Your task to perform on an android device: turn notification dots off Image 0: 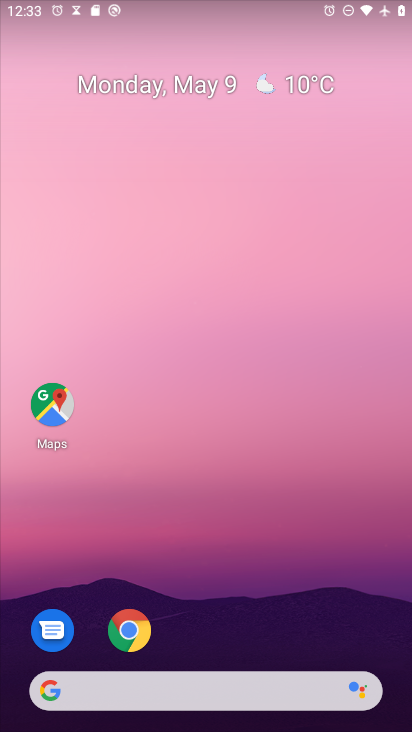
Step 0: drag from (207, 698) to (346, 194)
Your task to perform on an android device: turn notification dots off Image 1: 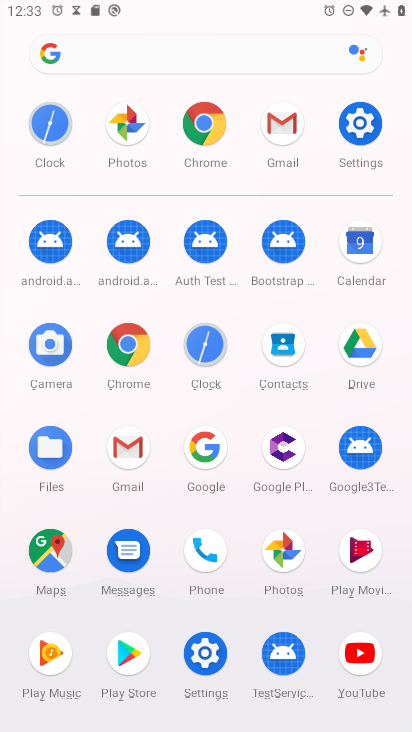
Step 1: click (347, 133)
Your task to perform on an android device: turn notification dots off Image 2: 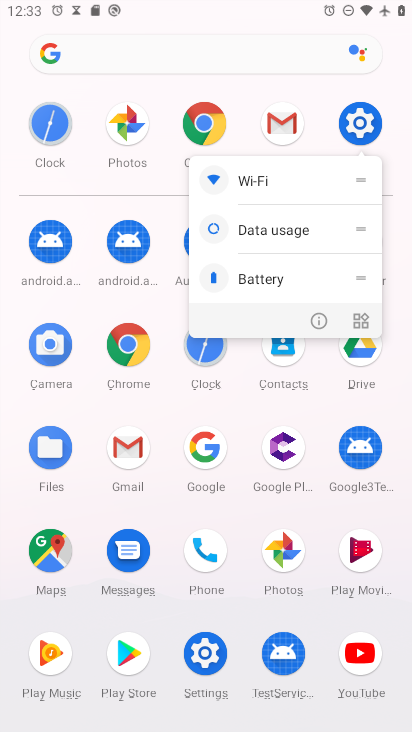
Step 2: click (365, 118)
Your task to perform on an android device: turn notification dots off Image 3: 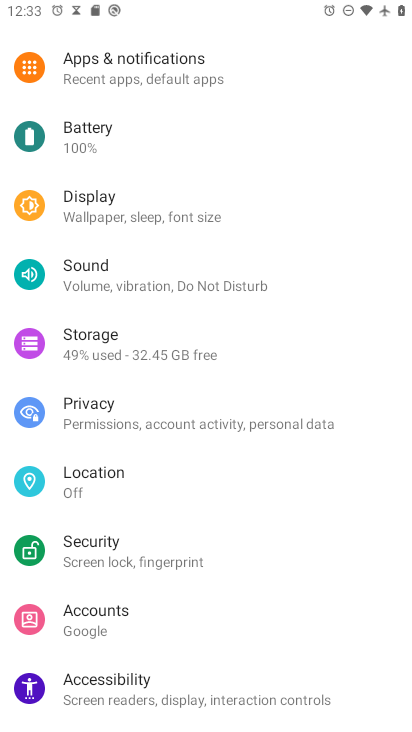
Step 3: click (176, 59)
Your task to perform on an android device: turn notification dots off Image 4: 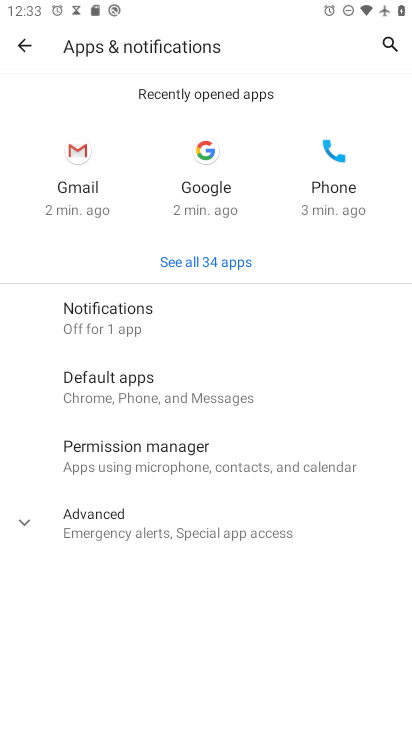
Step 4: click (107, 321)
Your task to perform on an android device: turn notification dots off Image 5: 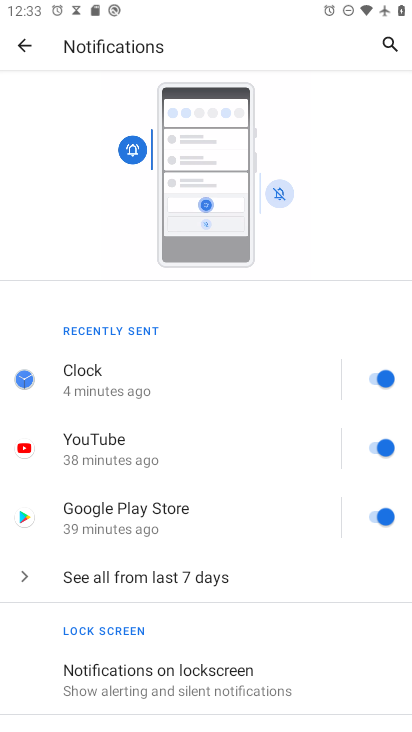
Step 5: drag from (212, 645) to (353, 383)
Your task to perform on an android device: turn notification dots off Image 6: 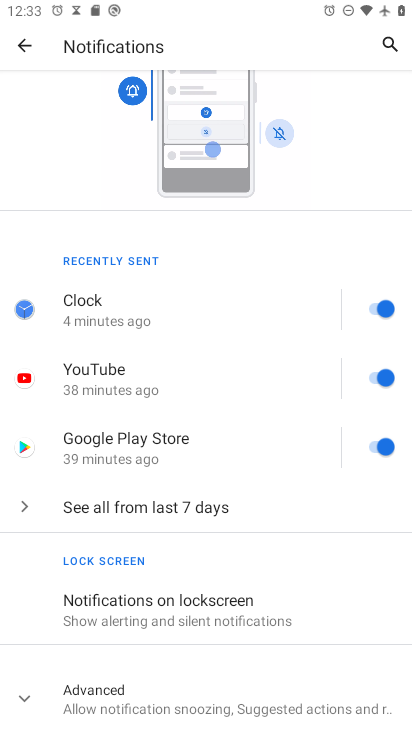
Step 6: click (230, 712)
Your task to perform on an android device: turn notification dots off Image 7: 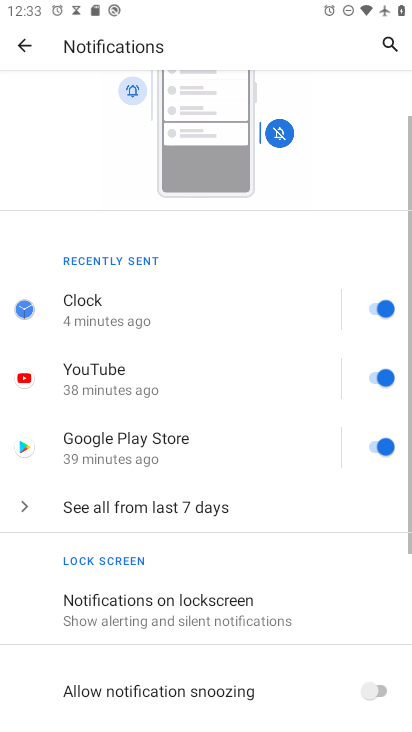
Step 7: drag from (249, 670) to (407, 208)
Your task to perform on an android device: turn notification dots off Image 8: 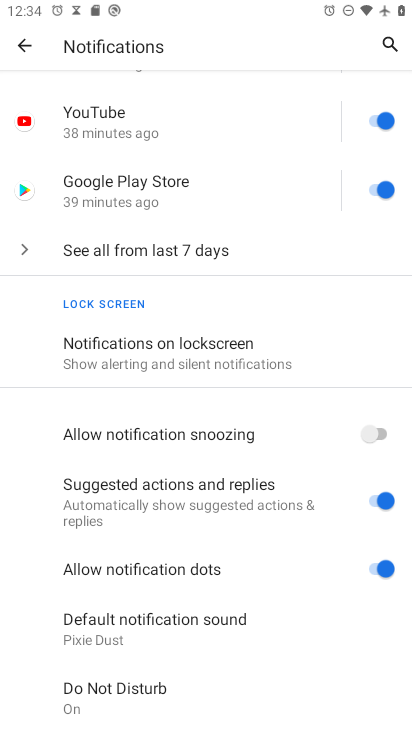
Step 8: click (366, 572)
Your task to perform on an android device: turn notification dots off Image 9: 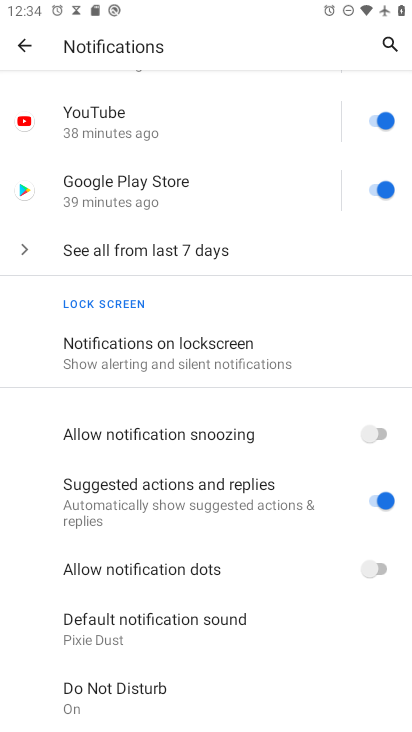
Step 9: task complete